Your task to perform on an android device: Open calendar and show me the third week of next month Image 0: 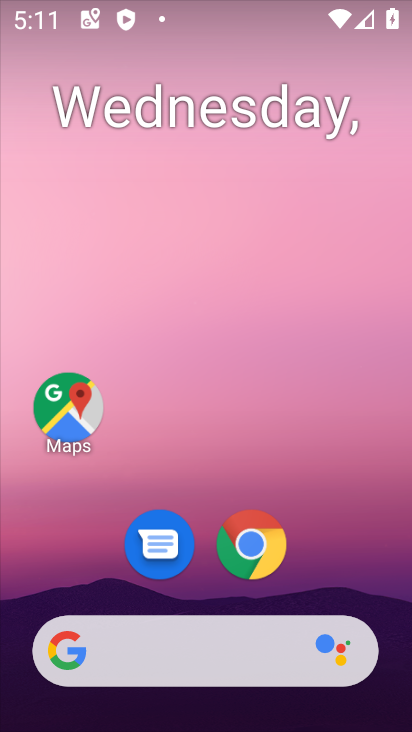
Step 0: drag from (378, 654) to (304, 96)
Your task to perform on an android device: Open calendar and show me the third week of next month Image 1: 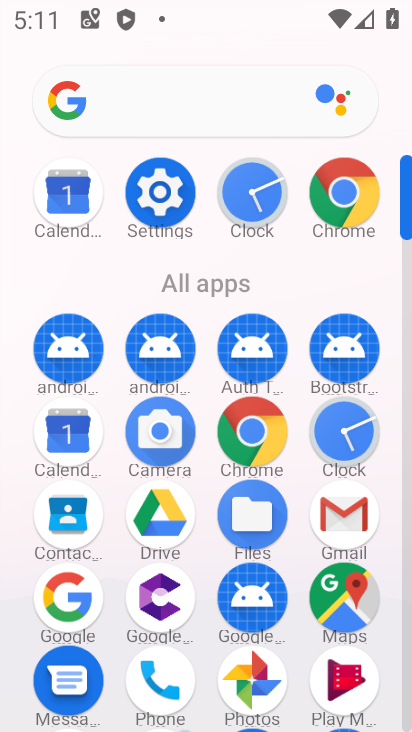
Step 1: click (72, 442)
Your task to perform on an android device: Open calendar and show me the third week of next month Image 2: 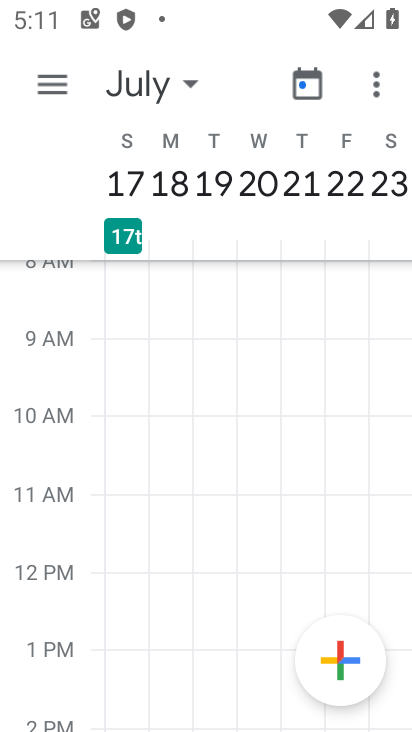
Step 2: click (192, 83)
Your task to perform on an android device: Open calendar and show me the third week of next month Image 3: 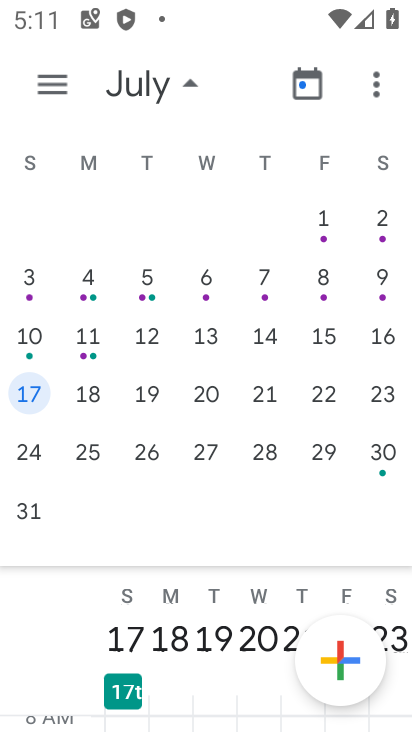
Step 3: click (198, 340)
Your task to perform on an android device: Open calendar and show me the third week of next month Image 4: 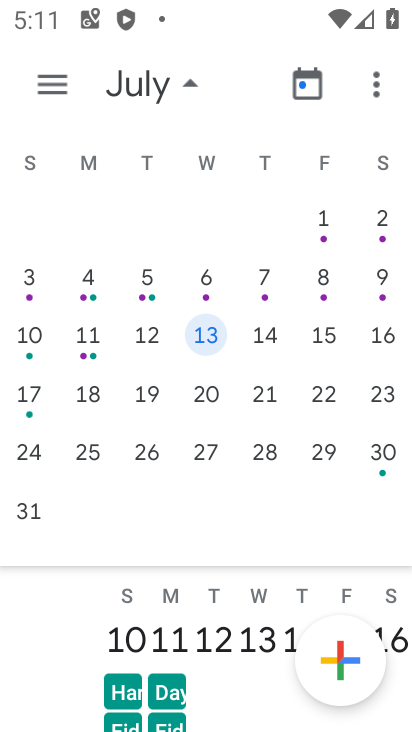
Step 4: task complete